Your task to perform on an android device: Open internet settings Image 0: 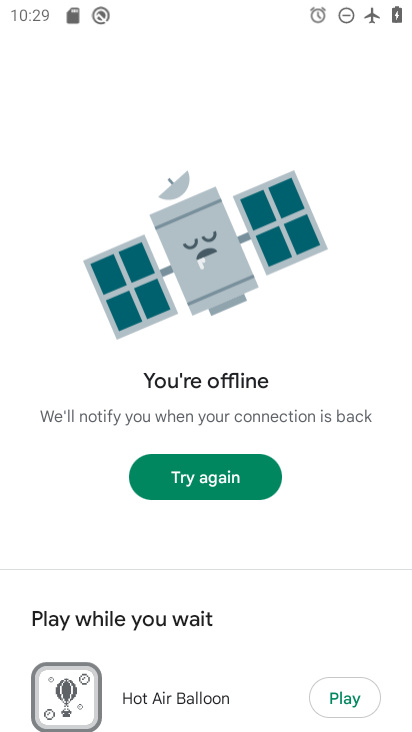
Step 0: press home button
Your task to perform on an android device: Open internet settings Image 1: 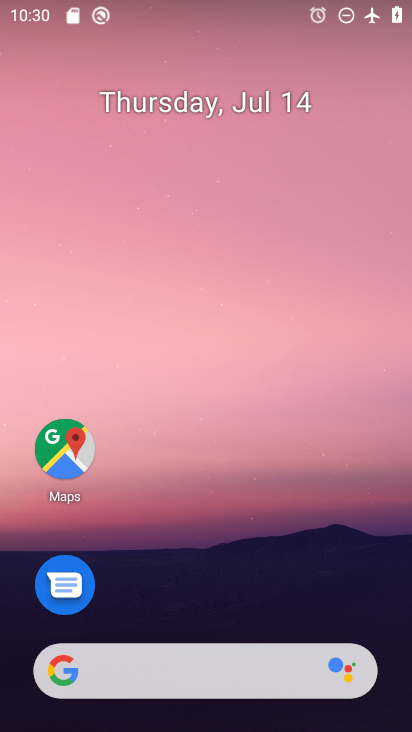
Step 1: drag from (265, 634) to (14, 355)
Your task to perform on an android device: Open internet settings Image 2: 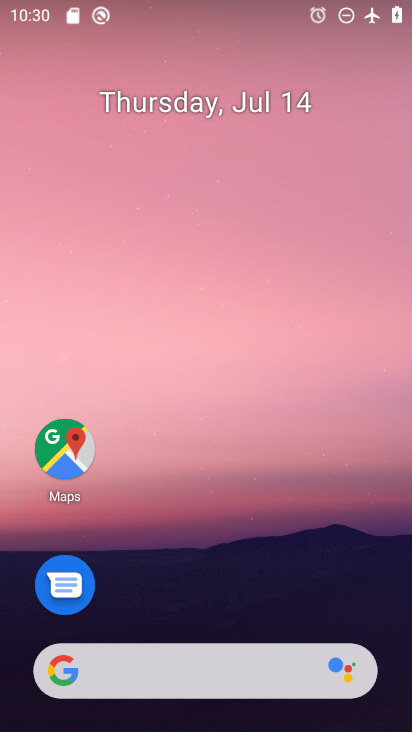
Step 2: drag from (188, 620) to (80, 164)
Your task to perform on an android device: Open internet settings Image 3: 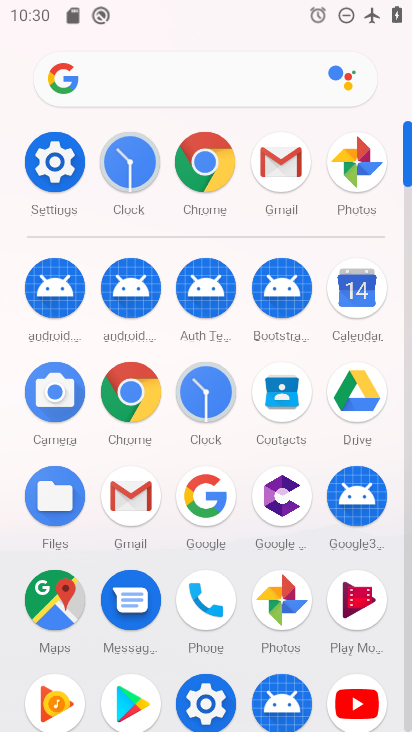
Step 3: click (58, 164)
Your task to perform on an android device: Open internet settings Image 4: 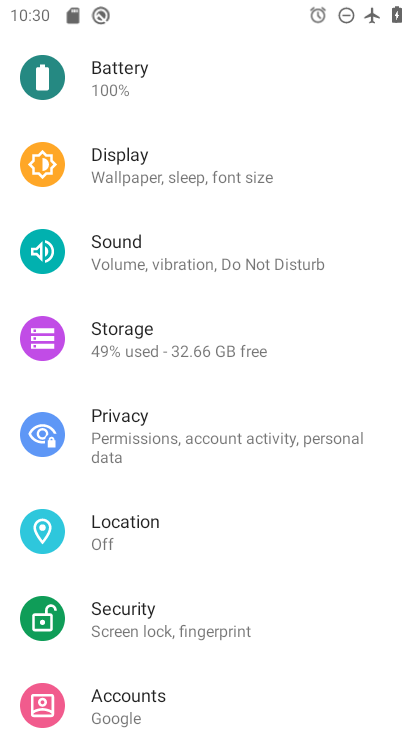
Step 4: drag from (116, 122) to (234, 594)
Your task to perform on an android device: Open internet settings Image 5: 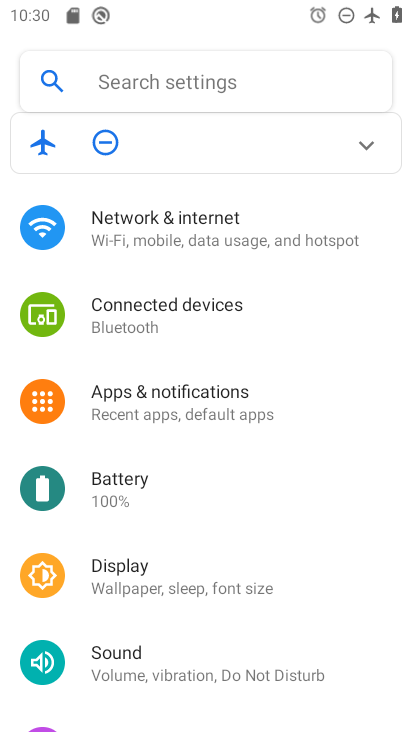
Step 5: click (147, 228)
Your task to perform on an android device: Open internet settings Image 6: 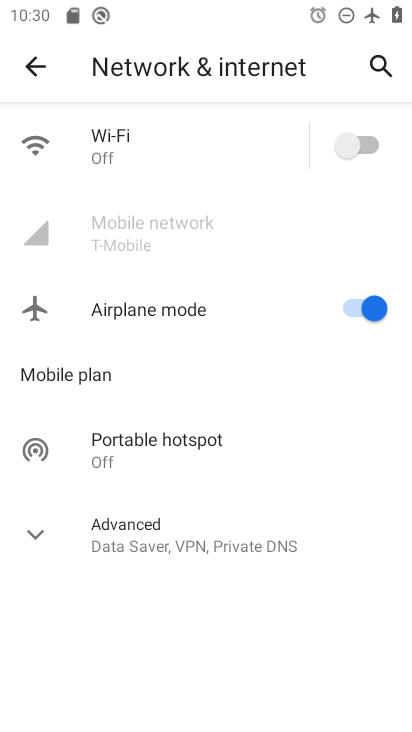
Step 6: task complete